Your task to perform on an android device: open the mobile data screen to see how much data has been used Image 0: 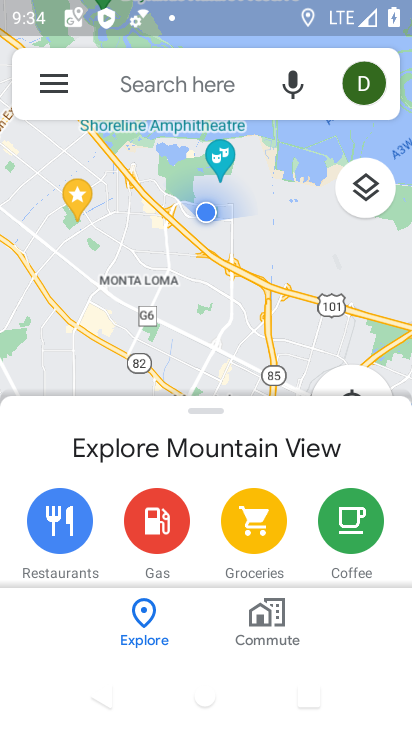
Step 0: press home button
Your task to perform on an android device: open the mobile data screen to see how much data has been used Image 1: 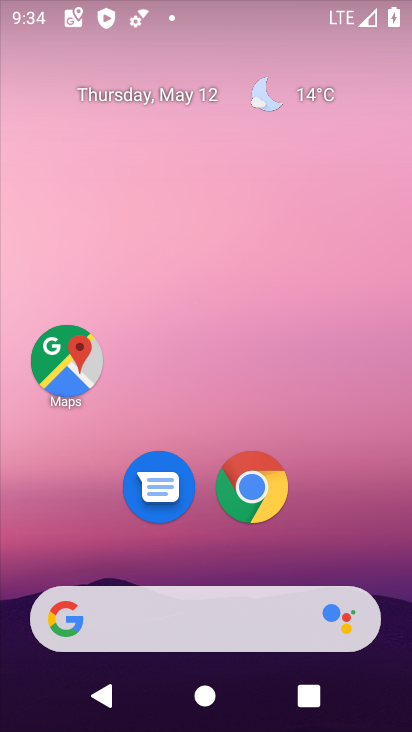
Step 1: drag from (11, 731) to (303, 89)
Your task to perform on an android device: open the mobile data screen to see how much data has been used Image 2: 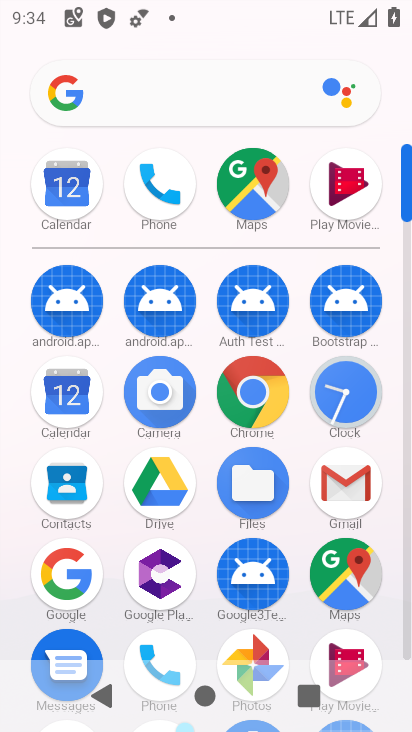
Step 2: drag from (139, 617) to (331, 155)
Your task to perform on an android device: open the mobile data screen to see how much data has been used Image 3: 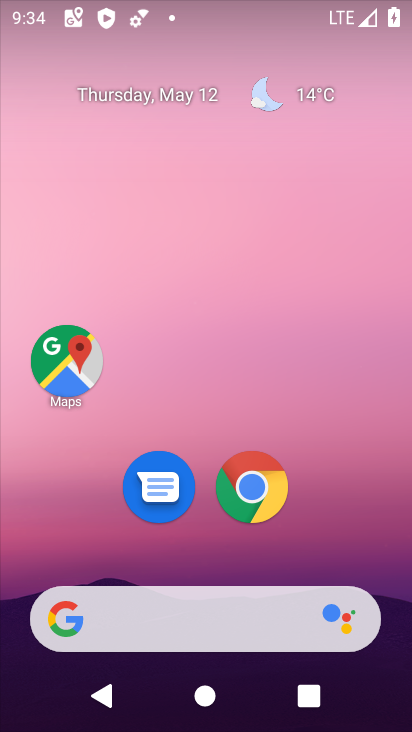
Step 3: drag from (7, 557) to (225, 170)
Your task to perform on an android device: open the mobile data screen to see how much data has been used Image 4: 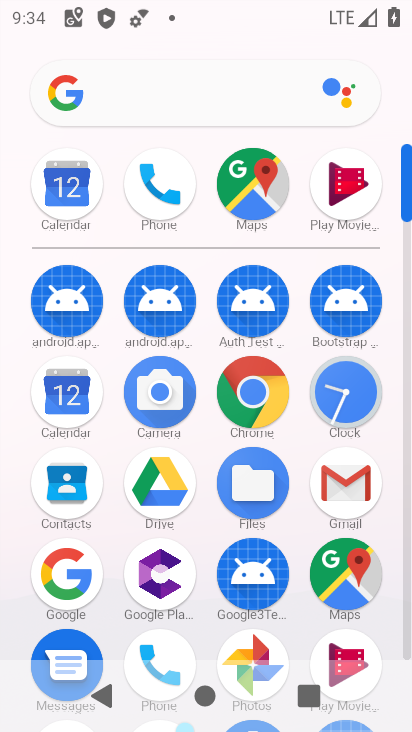
Step 4: drag from (26, 603) to (270, 200)
Your task to perform on an android device: open the mobile data screen to see how much data has been used Image 5: 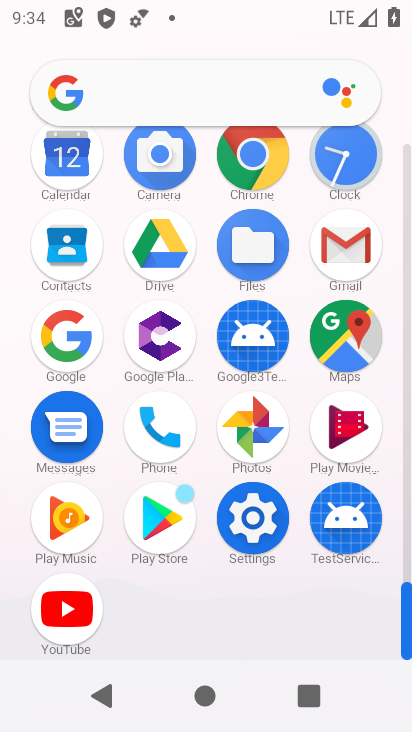
Step 5: click (247, 520)
Your task to perform on an android device: open the mobile data screen to see how much data has been used Image 6: 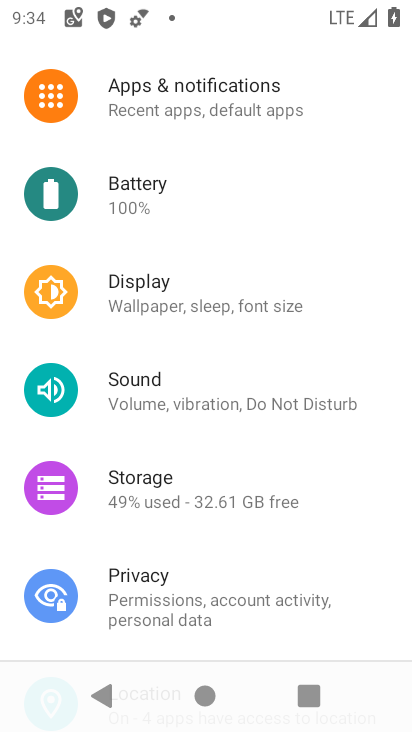
Step 6: drag from (225, 120) to (212, 564)
Your task to perform on an android device: open the mobile data screen to see how much data has been used Image 7: 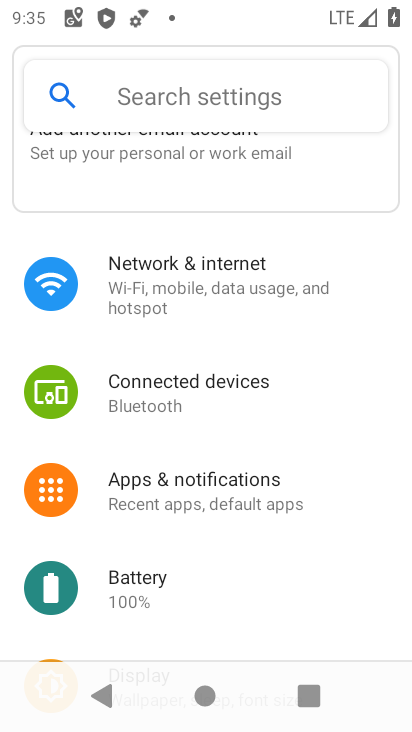
Step 7: click (272, 259)
Your task to perform on an android device: open the mobile data screen to see how much data has been used Image 8: 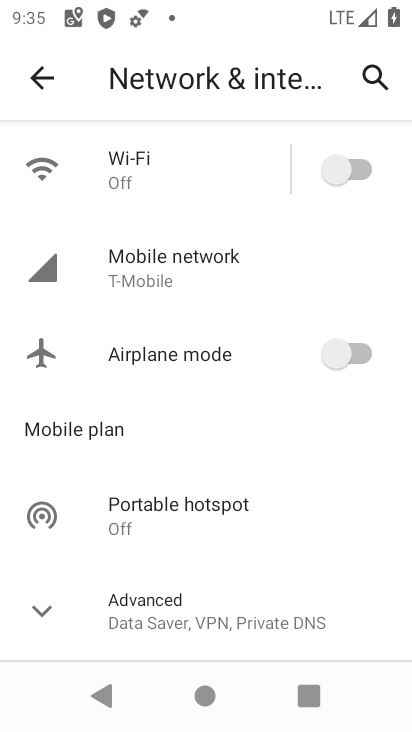
Step 8: click (146, 256)
Your task to perform on an android device: open the mobile data screen to see how much data has been used Image 9: 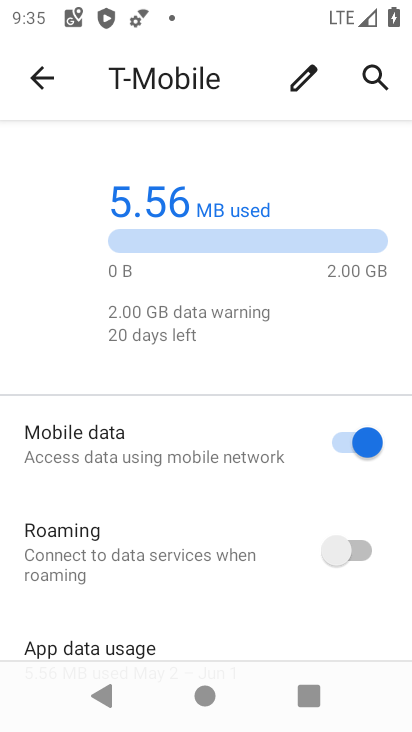
Step 9: drag from (103, 599) to (200, 327)
Your task to perform on an android device: open the mobile data screen to see how much data has been used Image 10: 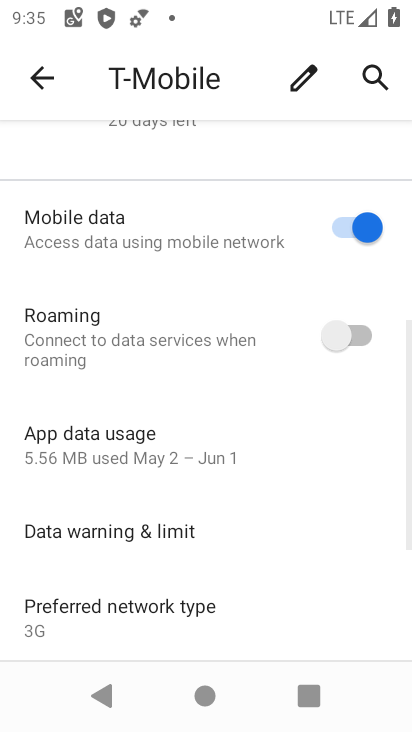
Step 10: click (161, 470)
Your task to perform on an android device: open the mobile data screen to see how much data has been used Image 11: 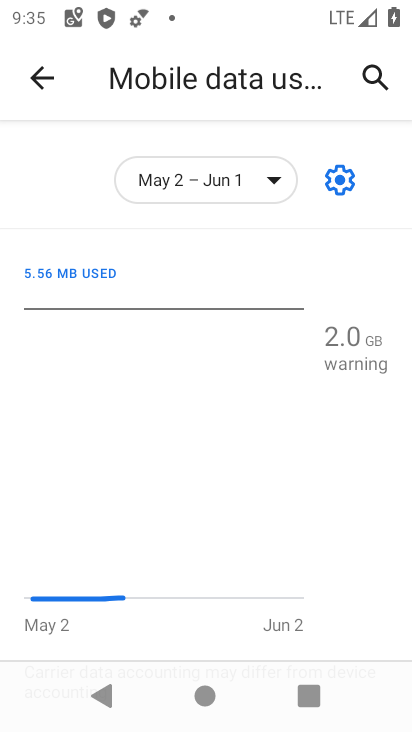
Step 11: task complete